Your task to perform on an android device: allow cookies in the chrome app Image 0: 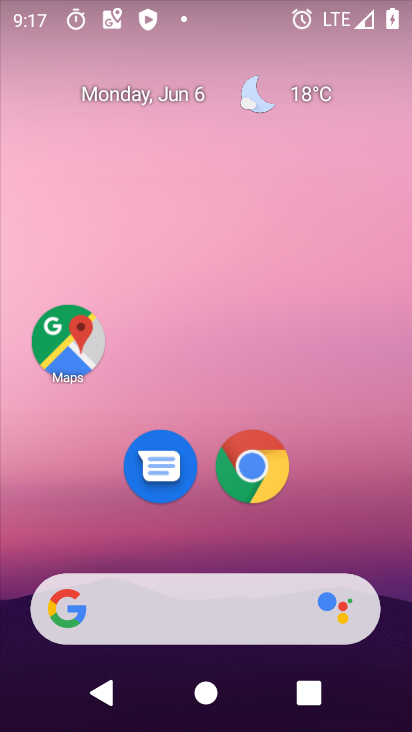
Step 0: click (244, 33)
Your task to perform on an android device: allow cookies in the chrome app Image 1: 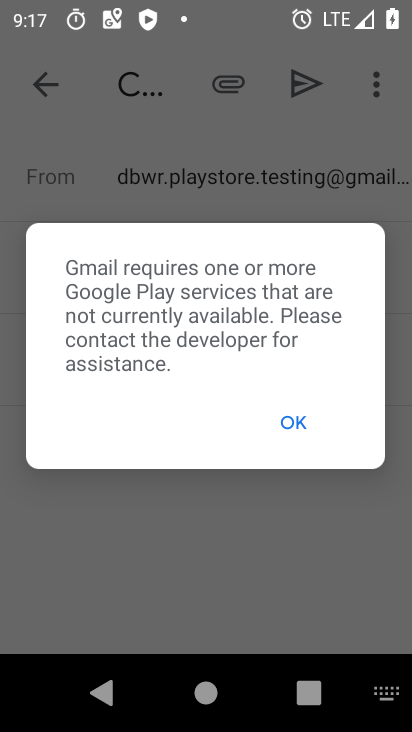
Step 1: press home button
Your task to perform on an android device: allow cookies in the chrome app Image 2: 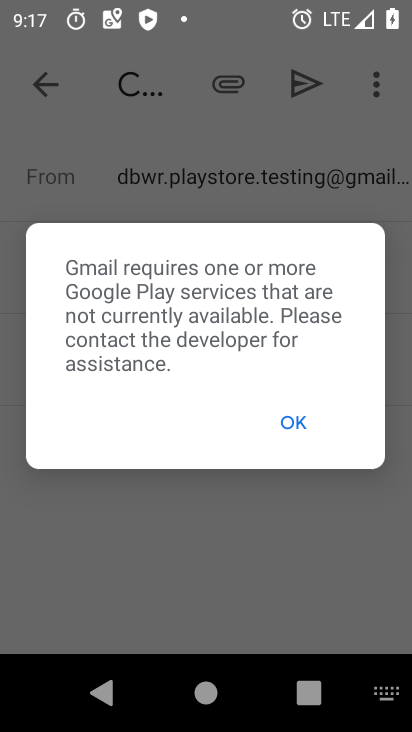
Step 2: press home button
Your task to perform on an android device: allow cookies in the chrome app Image 3: 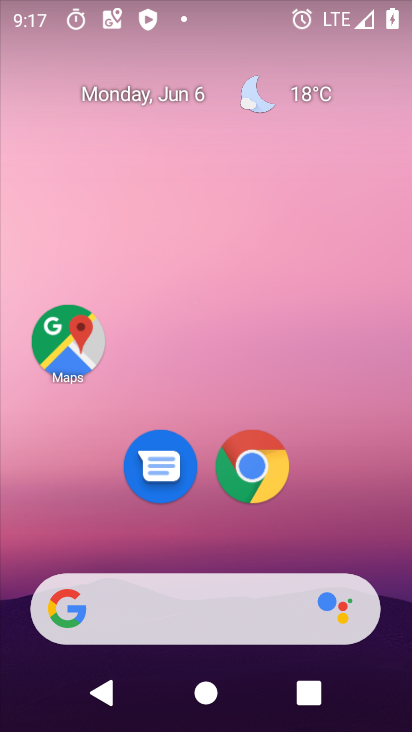
Step 3: click (290, 429)
Your task to perform on an android device: allow cookies in the chrome app Image 4: 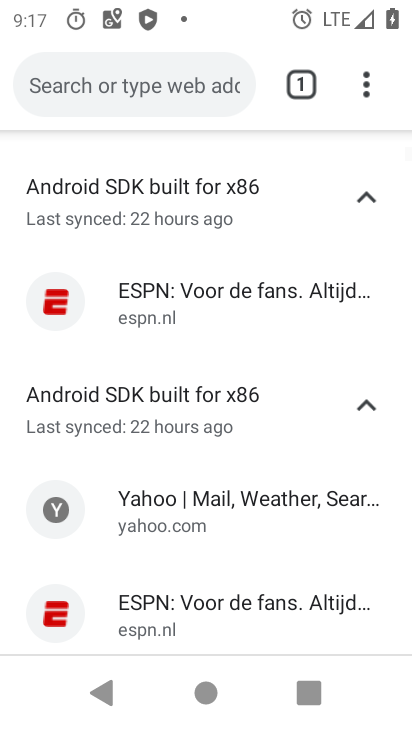
Step 4: drag from (338, 159) to (278, 472)
Your task to perform on an android device: allow cookies in the chrome app Image 5: 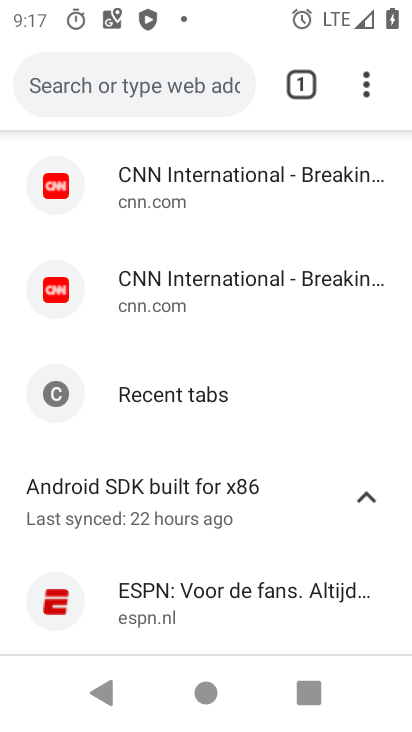
Step 5: click (369, 82)
Your task to perform on an android device: allow cookies in the chrome app Image 6: 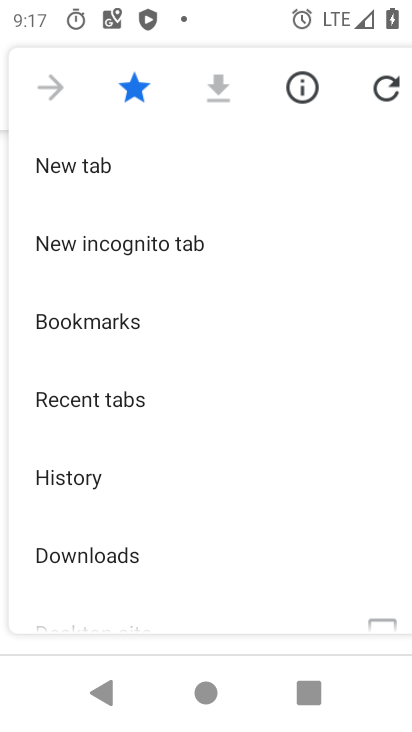
Step 6: drag from (180, 532) to (249, 5)
Your task to perform on an android device: allow cookies in the chrome app Image 7: 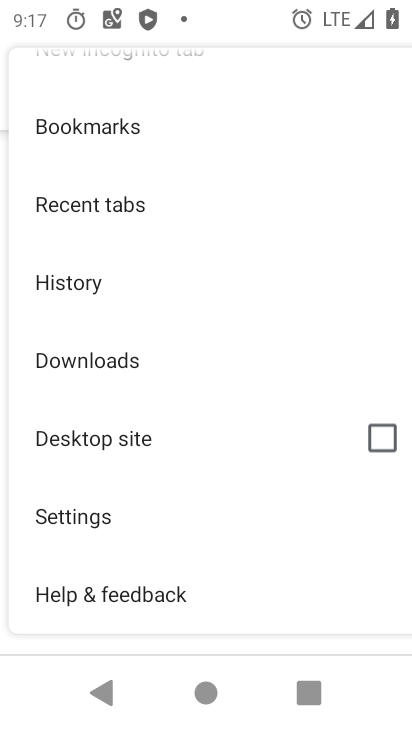
Step 7: click (111, 526)
Your task to perform on an android device: allow cookies in the chrome app Image 8: 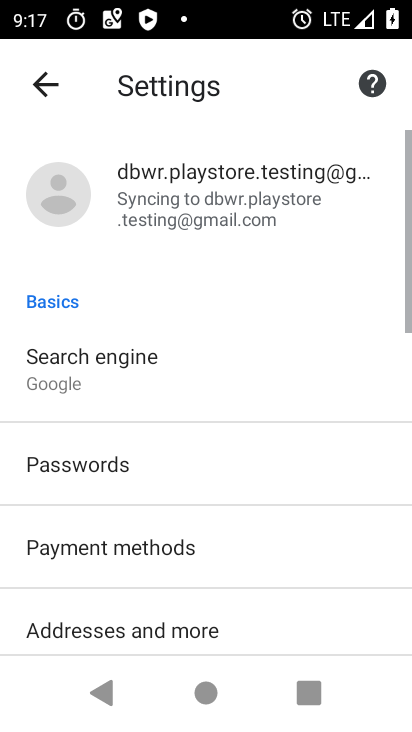
Step 8: drag from (181, 506) to (162, 12)
Your task to perform on an android device: allow cookies in the chrome app Image 9: 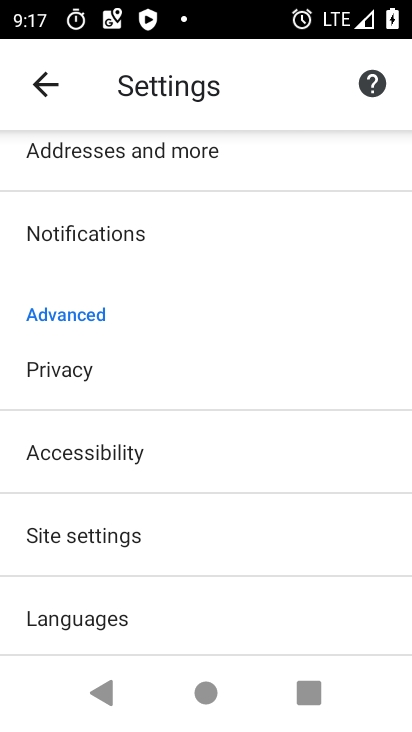
Step 9: click (69, 520)
Your task to perform on an android device: allow cookies in the chrome app Image 10: 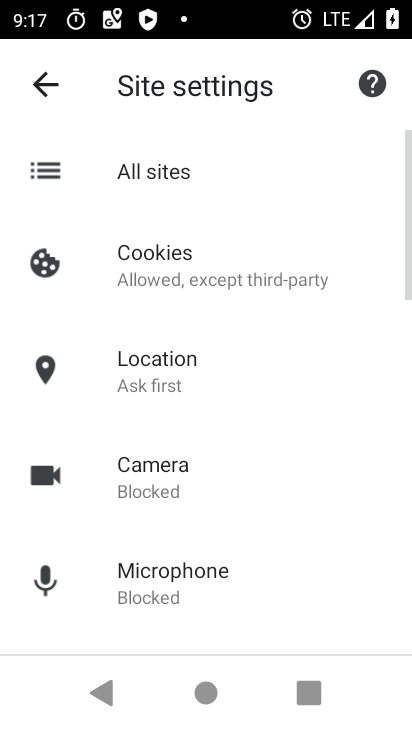
Step 10: click (177, 257)
Your task to perform on an android device: allow cookies in the chrome app Image 11: 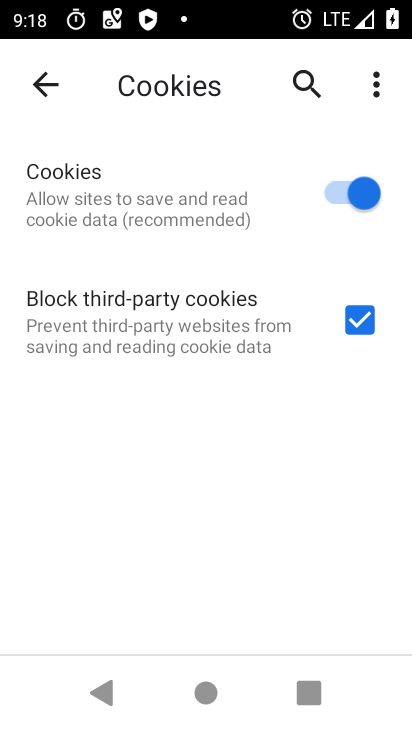
Step 11: task complete